Your task to perform on an android device: check data usage Image 0: 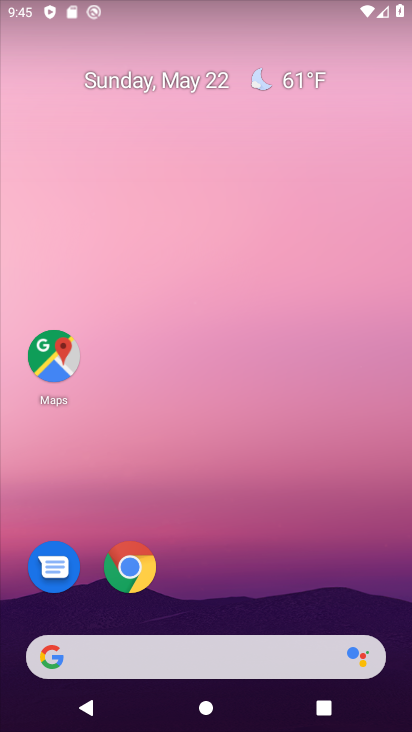
Step 0: drag from (214, 635) to (166, 78)
Your task to perform on an android device: check data usage Image 1: 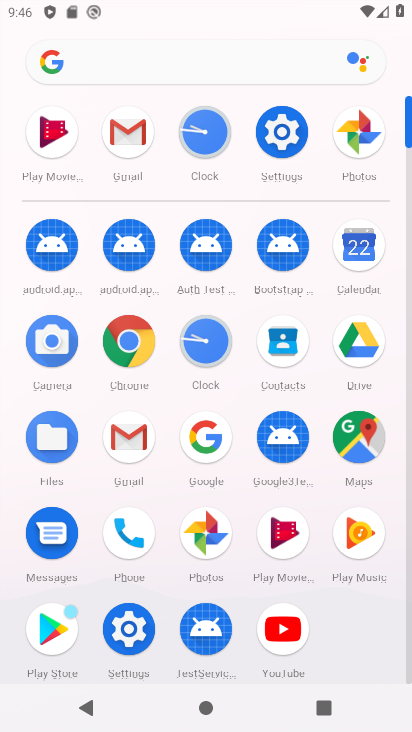
Step 1: click (293, 151)
Your task to perform on an android device: check data usage Image 2: 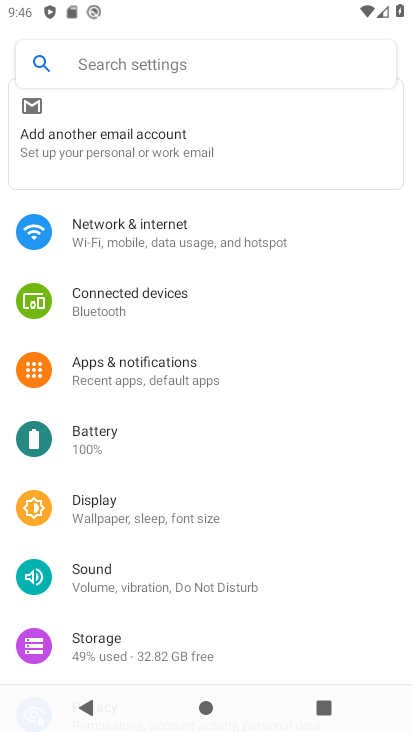
Step 2: click (123, 225)
Your task to perform on an android device: check data usage Image 3: 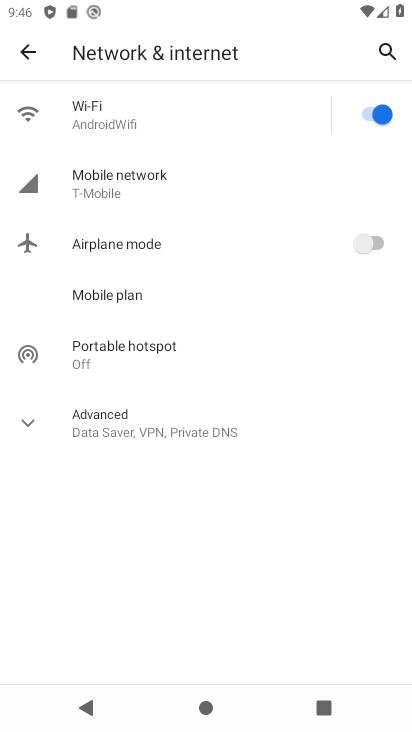
Step 3: click (143, 196)
Your task to perform on an android device: check data usage Image 4: 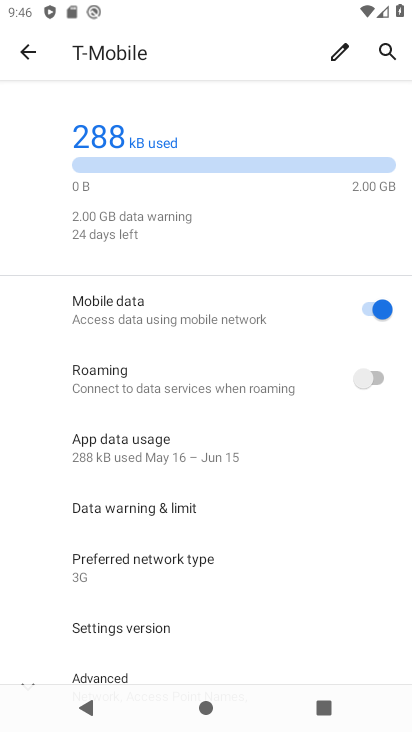
Step 4: task complete